Your task to perform on an android device: Check the weather Image 0: 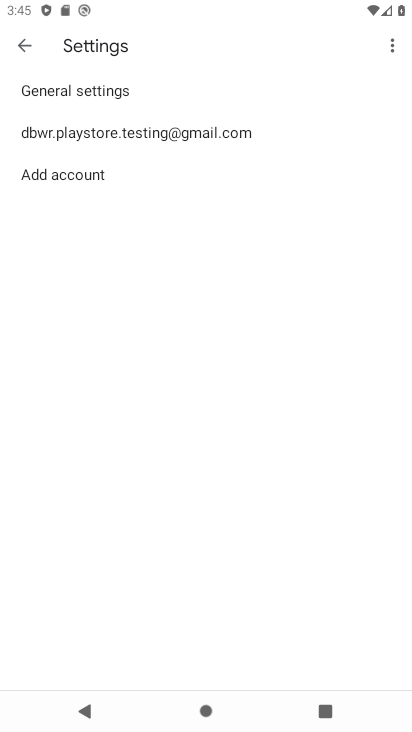
Step 0: press home button
Your task to perform on an android device: Check the weather Image 1: 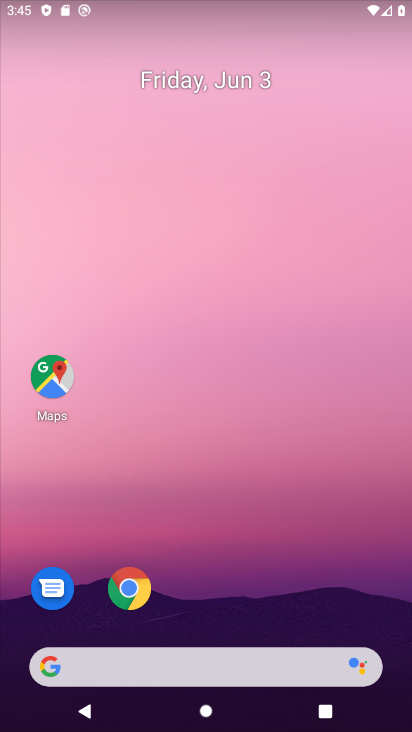
Step 1: click (216, 676)
Your task to perform on an android device: Check the weather Image 2: 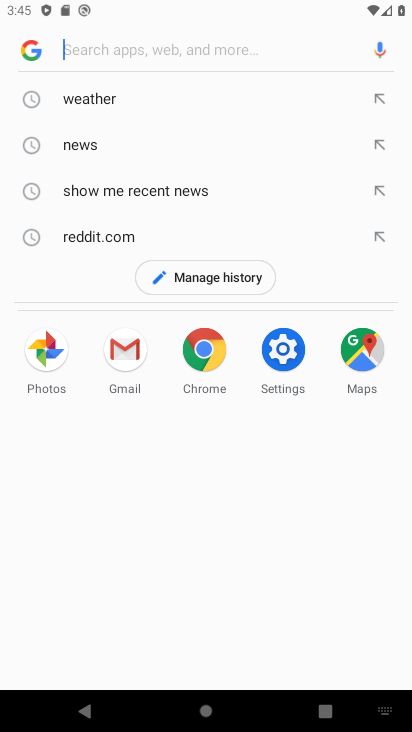
Step 2: click (152, 108)
Your task to perform on an android device: Check the weather Image 3: 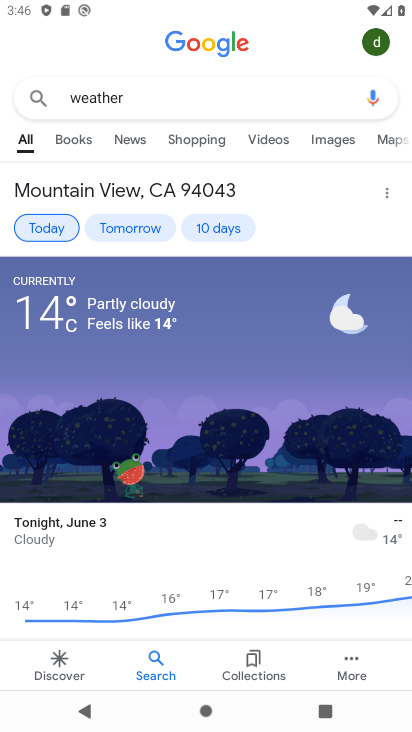
Step 3: task complete